Your task to perform on an android device: How much does a 3 bedroom apartment rent for in New York? Image 0: 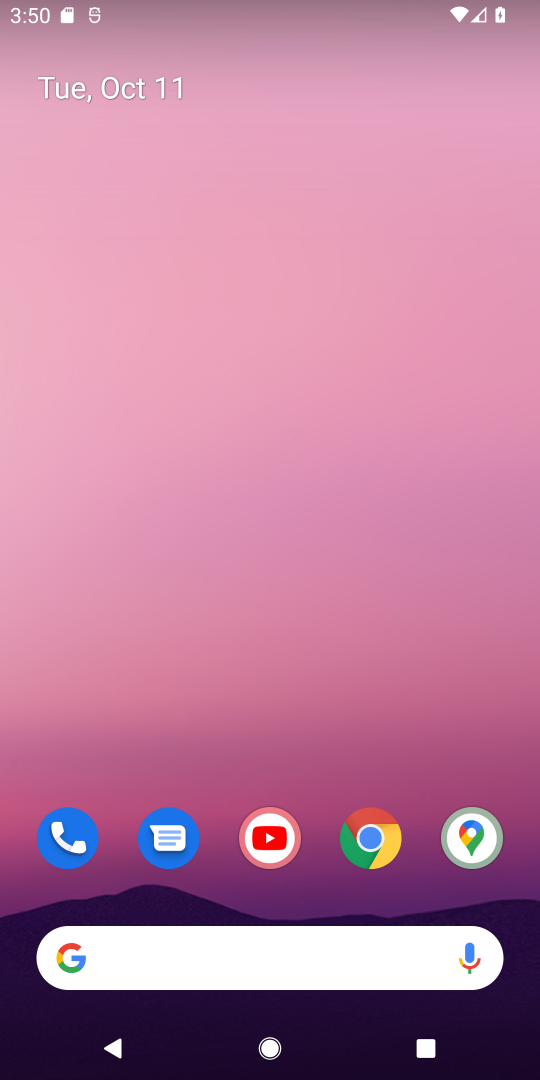
Step 0: click (251, 942)
Your task to perform on an android device: How much does a 3 bedroom apartment rent for in New York? Image 1: 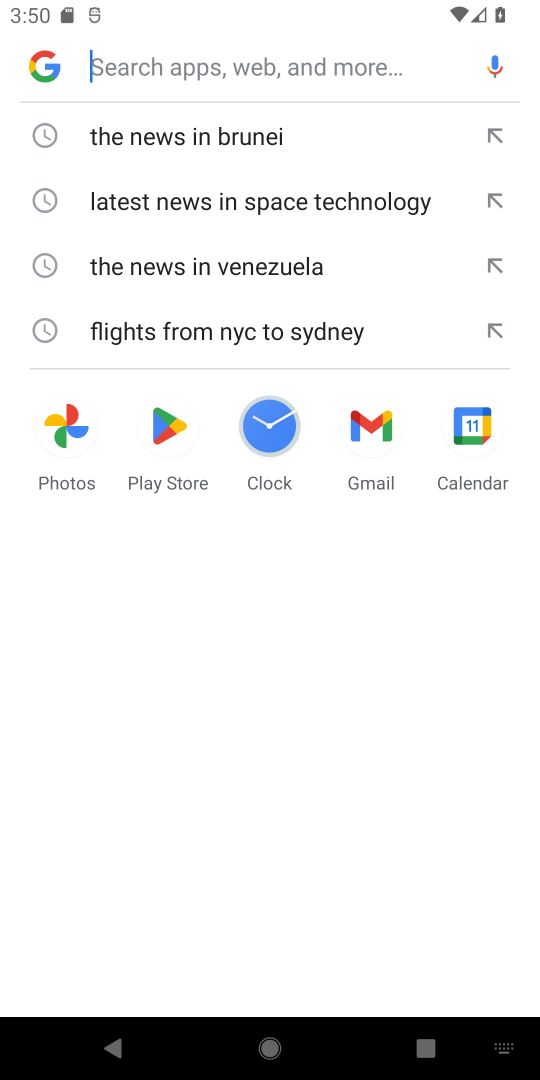
Step 1: type "3 bedroom apartment rent for in New York"
Your task to perform on an android device: How much does a 3 bedroom apartment rent for in New York? Image 2: 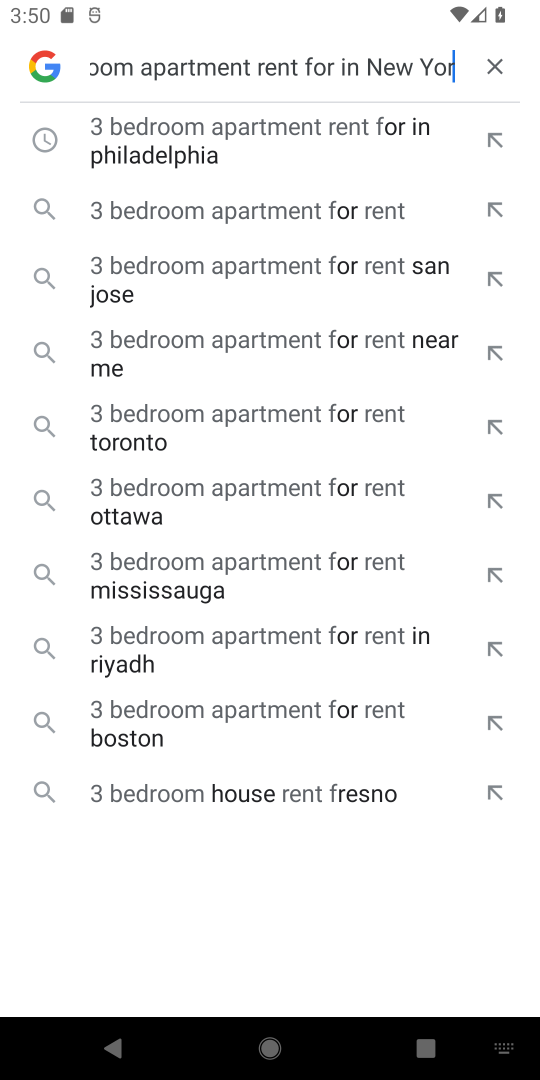
Step 2: type ""
Your task to perform on an android device: How much does a 3 bedroom apartment rent for in New York? Image 3: 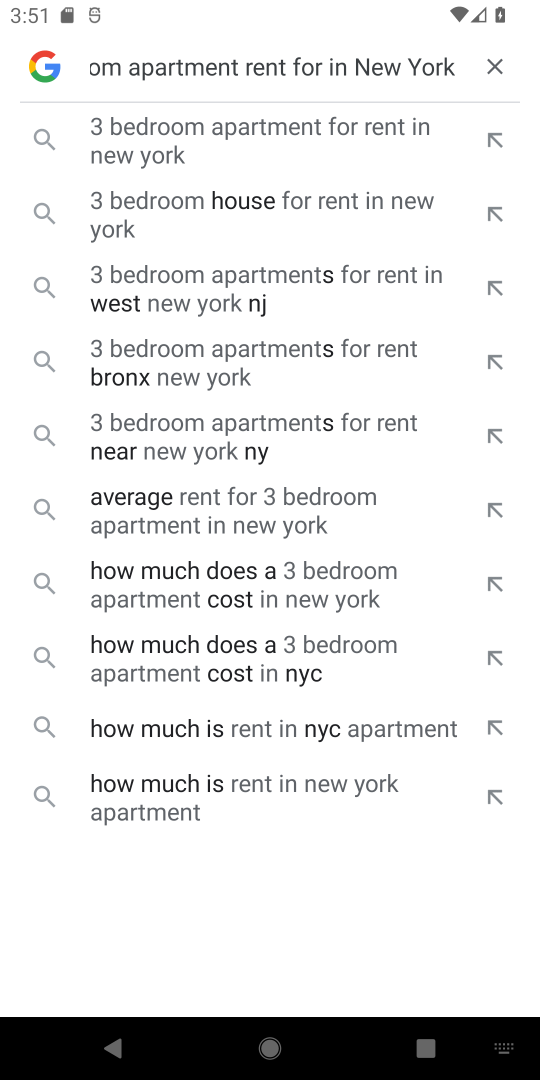
Step 3: click (197, 147)
Your task to perform on an android device: How much does a 3 bedroom apartment rent for in New York? Image 4: 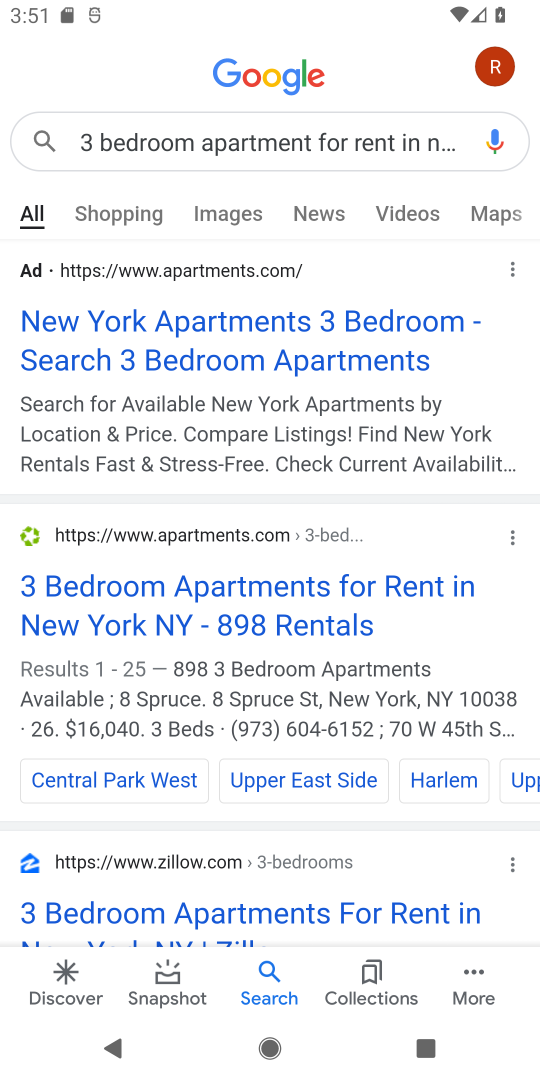
Step 4: click (199, 610)
Your task to perform on an android device: How much does a 3 bedroom apartment rent for in New York? Image 5: 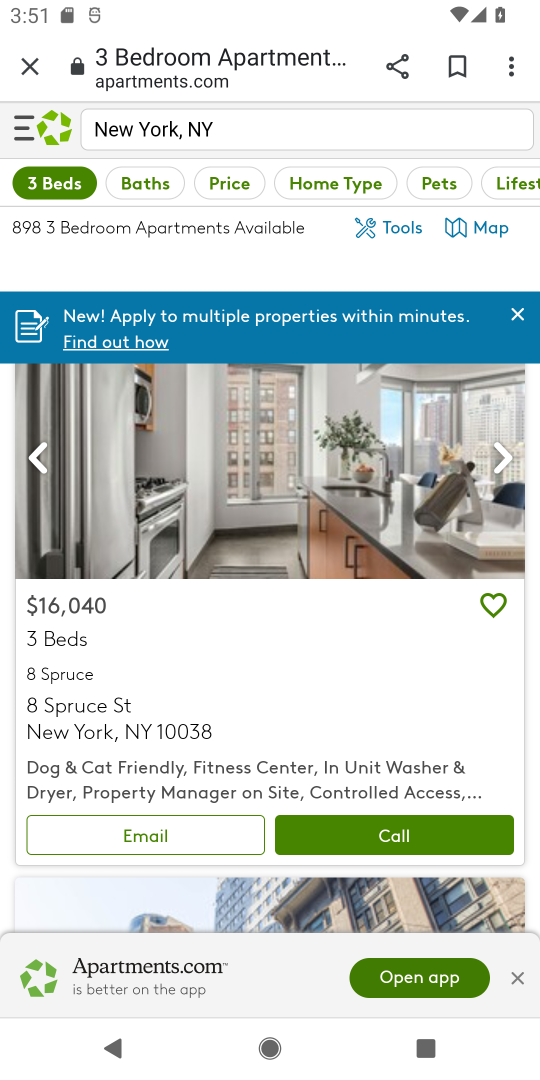
Step 5: task complete